Your task to perform on an android device: Go to calendar. Show me events next week Image 0: 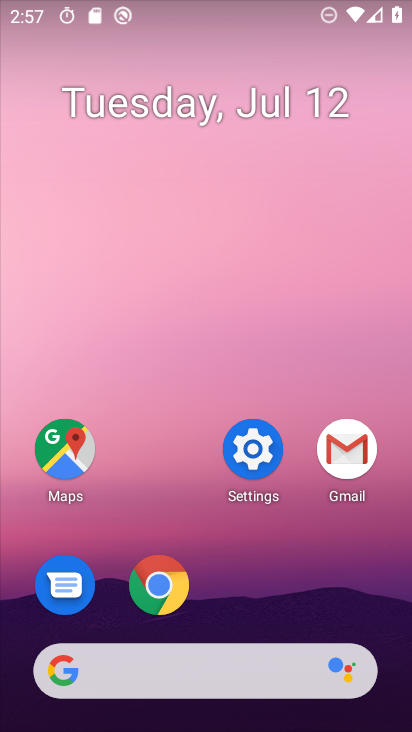
Step 0: drag from (393, 701) to (367, 153)
Your task to perform on an android device: Go to calendar. Show me events next week Image 1: 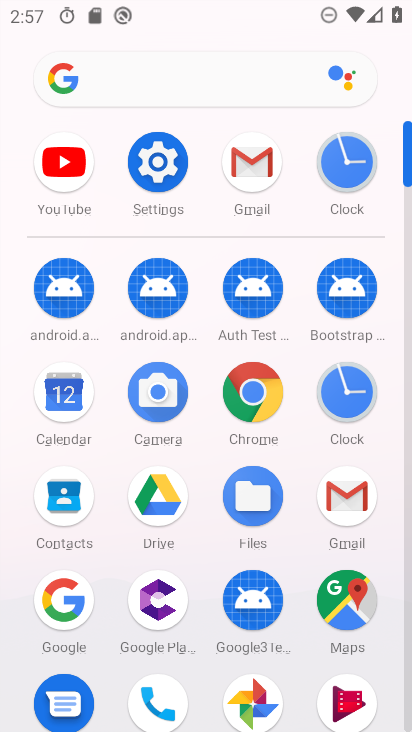
Step 1: click (67, 403)
Your task to perform on an android device: Go to calendar. Show me events next week Image 2: 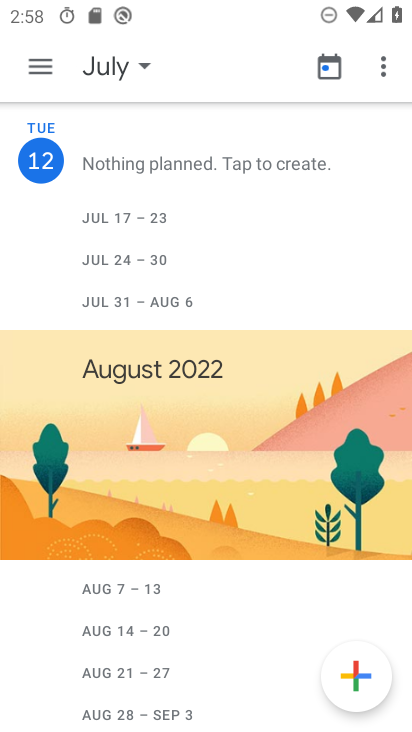
Step 2: click (146, 66)
Your task to perform on an android device: Go to calendar. Show me events next week Image 3: 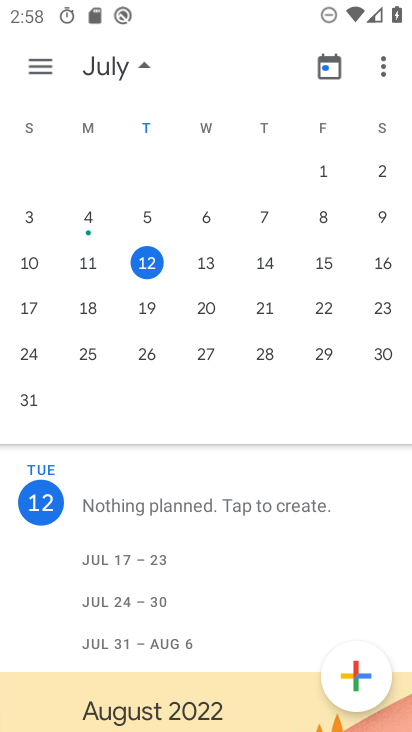
Step 3: click (153, 264)
Your task to perform on an android device: Go to calendar. Show me events next week Image 4: 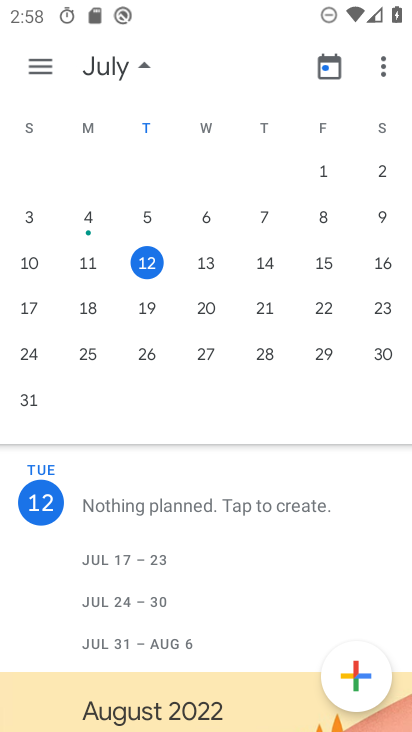
Step 4: click (148, 307)
Your task to perform on an android device: Go to calendar. Show me events next week Image 5: 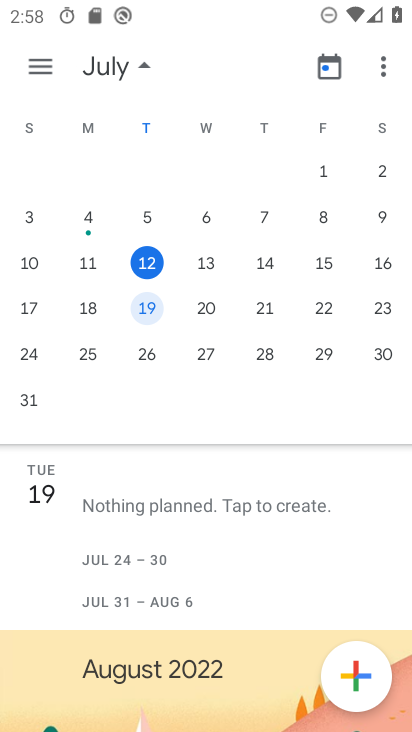
Step 5: click (36, 70)
Your task to perform on an android device: Go to calendar. Show me events next week Image 6: 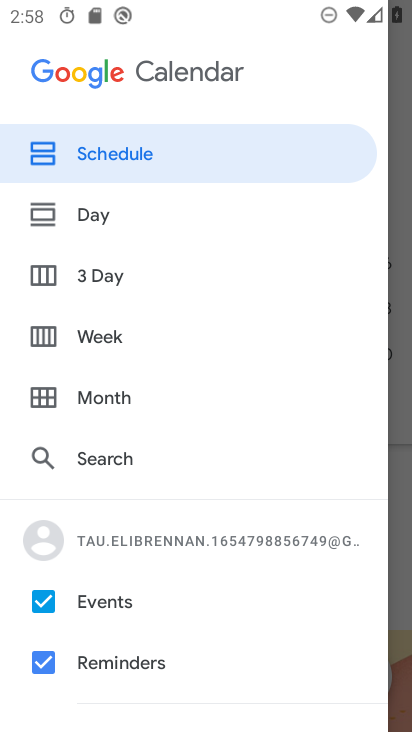
Step 6: click (92, 339)
Your task to perform on an android device: Go to calendar. Show me events next week Image 7: 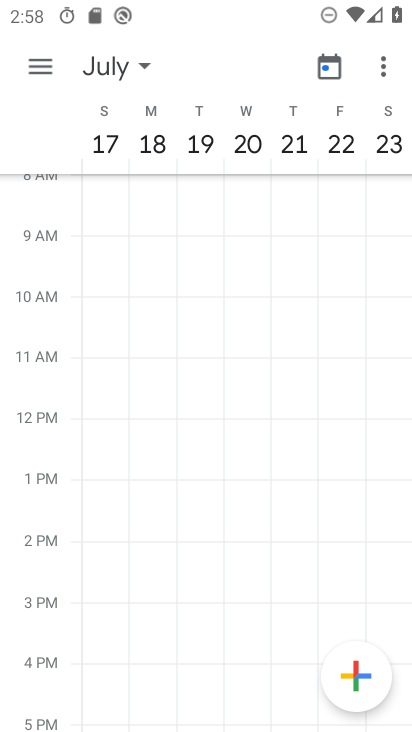
Step 7: task complete